Your task to perform on an android device: Go to Android settings Image 0: 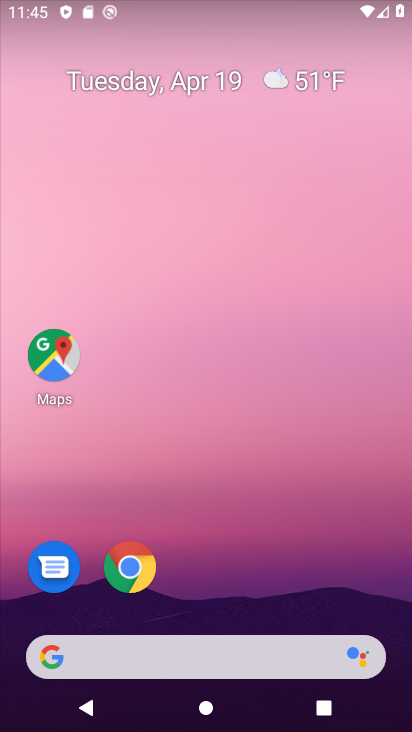
Step 0: drag from (223, 599) to (166, 16)
Your task to perform on an android device: Go to Android settings Image 1: 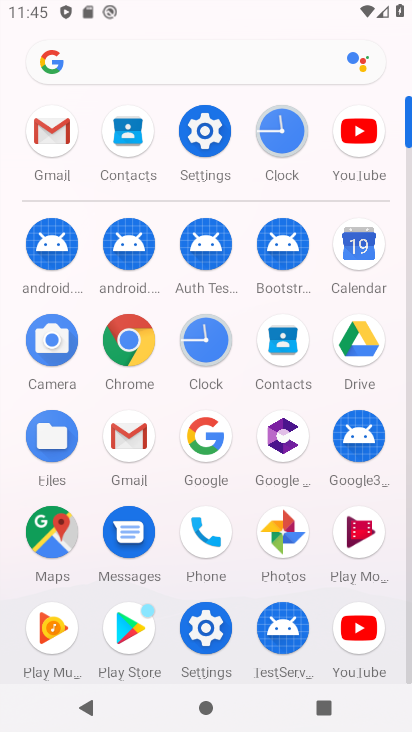
Step 1: click (192, 629)
Your task to perform on an android device: Go to Android settings Image 2: 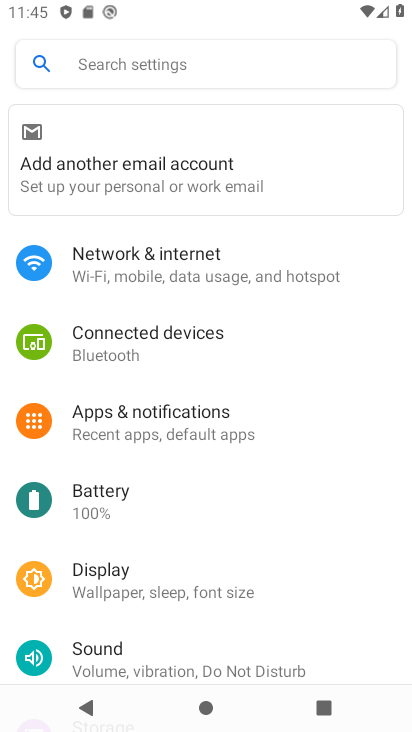
Step 2: drag from (198, 599) to (307, 51)
Your task to perform on an android device: Go to Android settings Image 3: 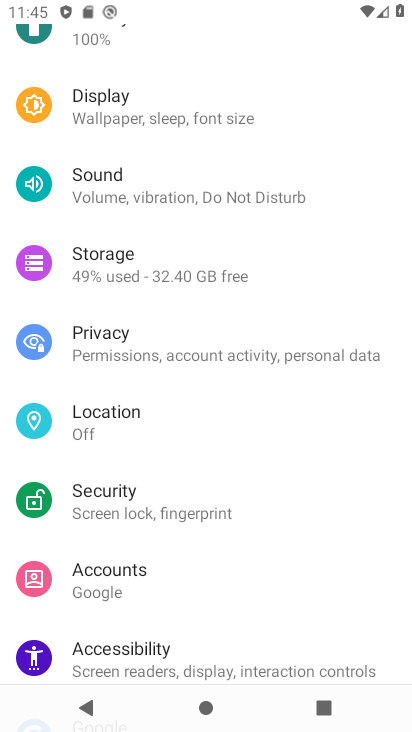
Step 3: drag from (183, 585) to (268, 164)
Your task to perform on an android device: Go to Android settings Image 4: 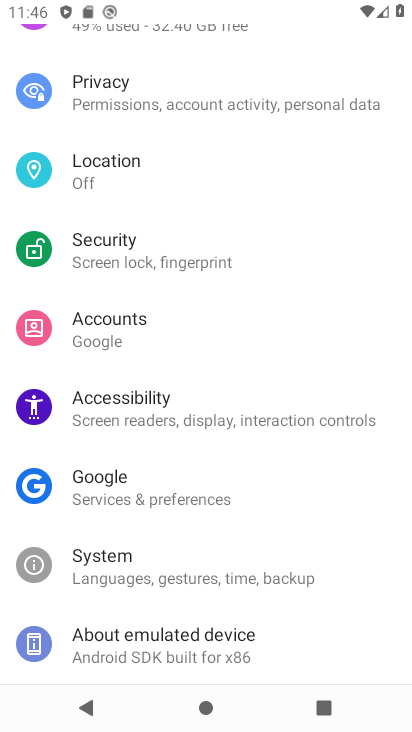
Step 4: click (157, 645)
Your task to perform on an android device: Go to Android settings Image 5: 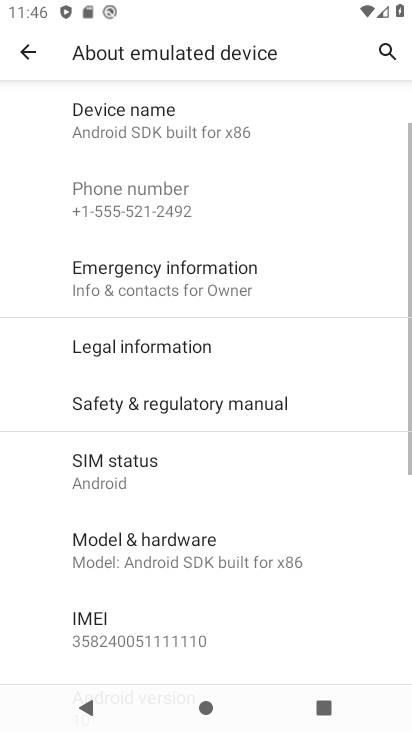
Step 5: drag from (153, 486) to (214, 166)
Your task to perform on an android device: Go to Android settings Image 6: 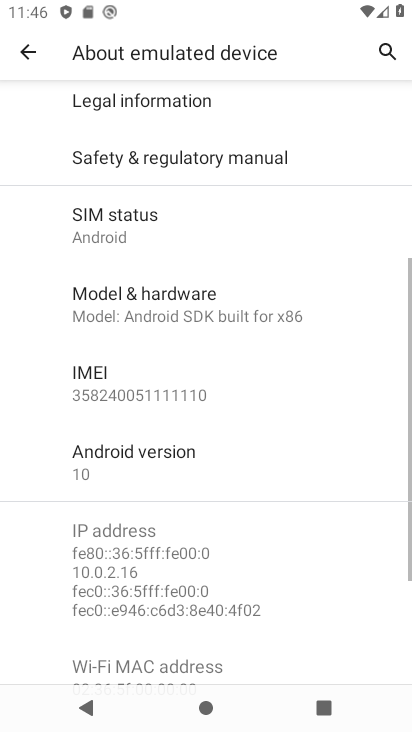
Step 6: click (104, 462)
Your task to perform on an android device: Go to Android settings Image 7: 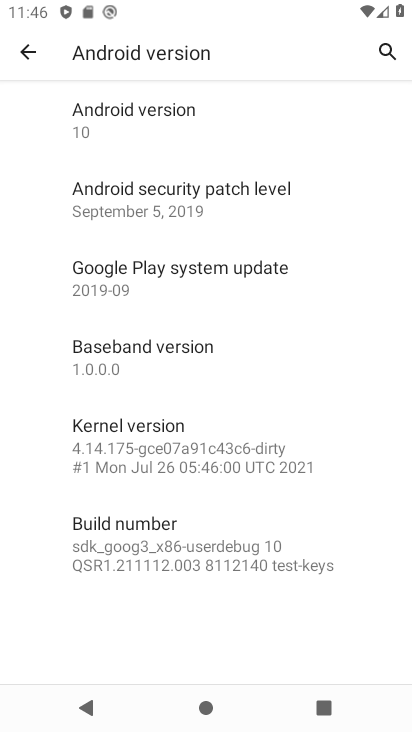
Step 7: task complete